Your task to perform on an android device: Show me the alarms in the clock app Image 0: 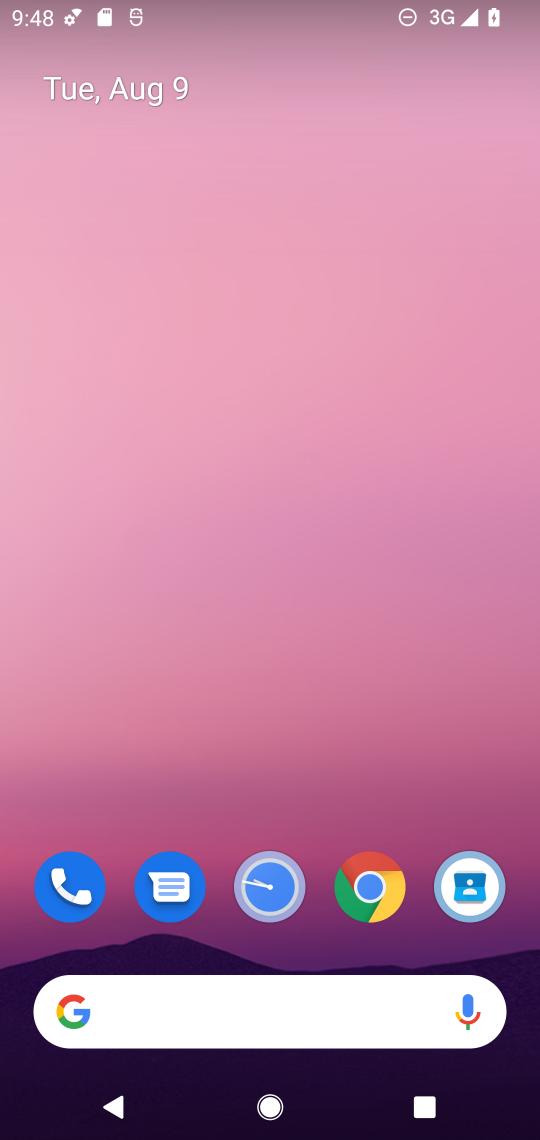
Step 0: click (274, 875)
Your task to perform on an android device: Show me the alarms in the clock app Image 1: 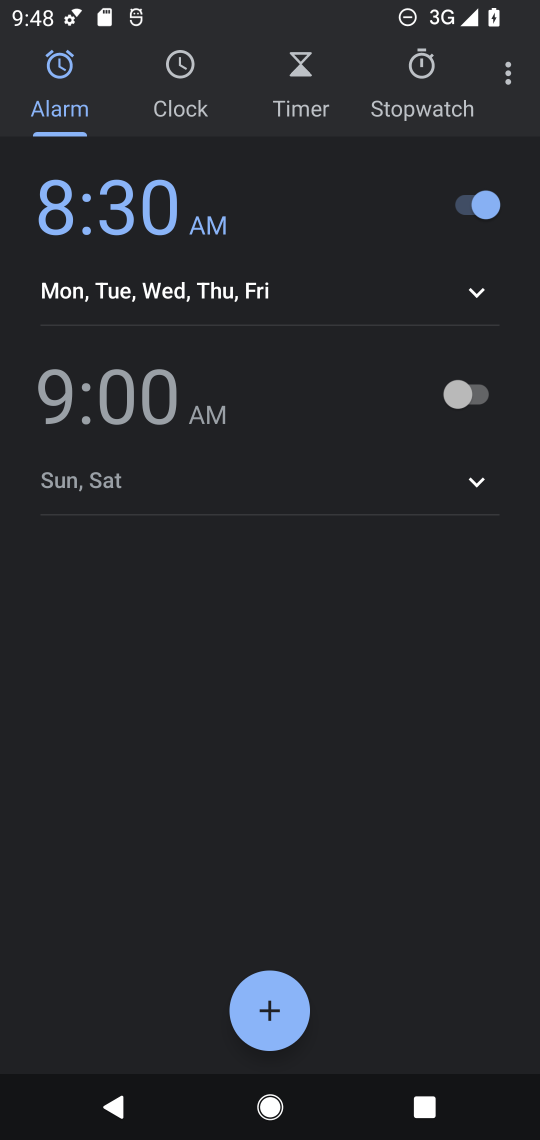
Step 1: task complete